Your task to perform on an android device: Open display settings Image 0: 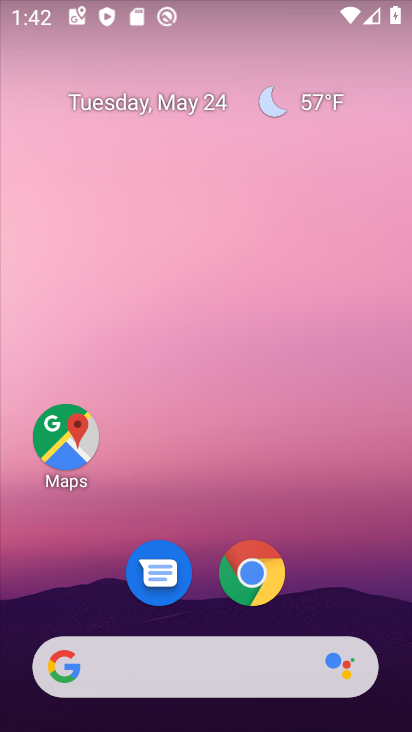
Step 0: drag from (374, 597) to (382, 111)
Your task to perform on an android device: Open display settings Image 1: 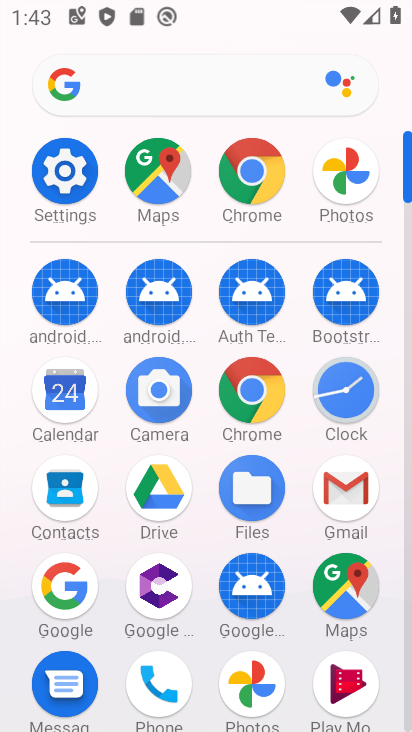
Step 1: click (59, 184)
Your task to perform on an android device: Open display settings Image 2: 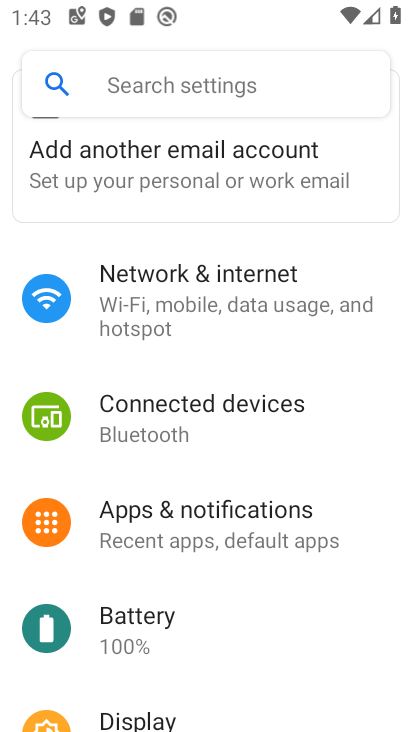
Step 2: drag from (188, 663) to (258, 322)
Your task to perform on an android device: Open display settings Image 3: 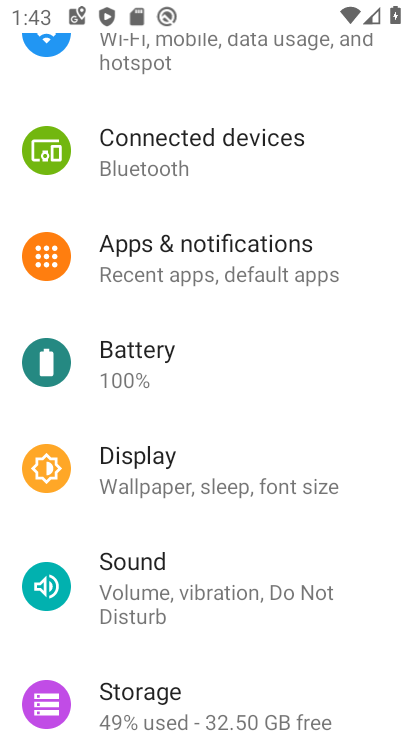
Step 3: click (162, 472)
Your task to perform on an android device: Open display settings Image 4: 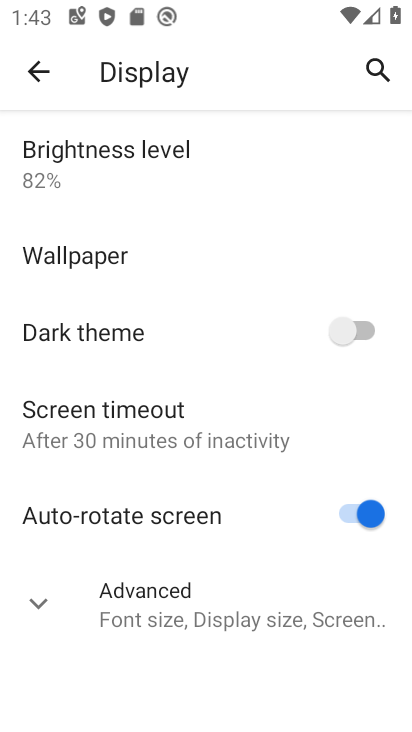
Step 4: task complete